Your task to perform on an android device: Open Google Chrome Image 0: 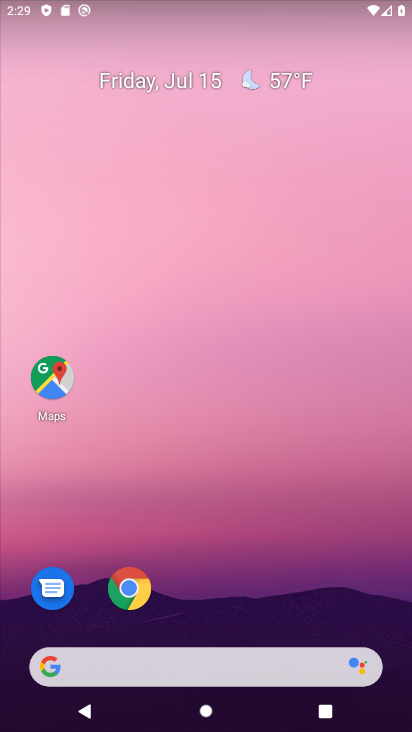
Step 0: click (128, 588)
Your task to perform on an android device: Open Google Chrome Image 1: 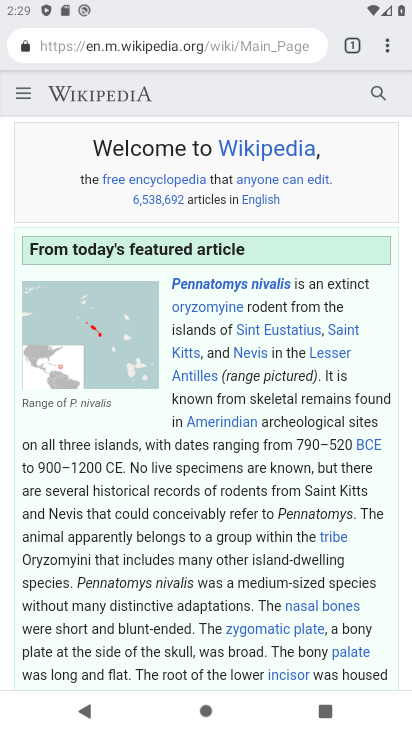
Step 1: task complete